Your task to perform on an android device: Go to Maps Image 0: 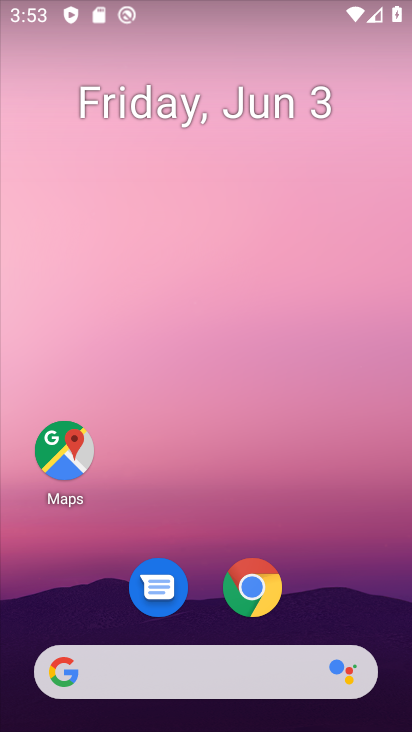
Step 0: click (82, 417)
Your task to perform on an android device: Go to Maps Image 1: 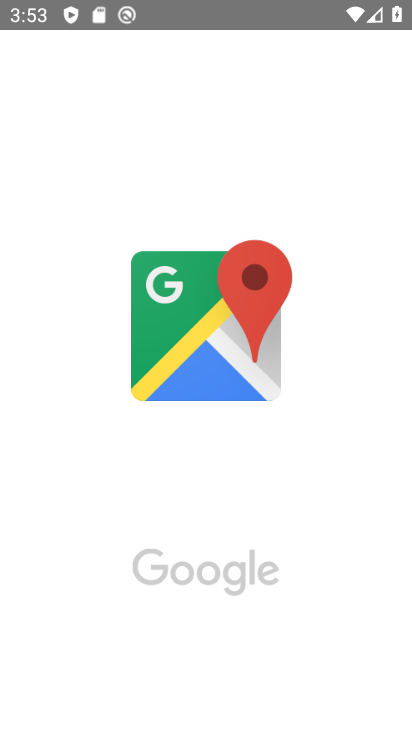
Step 1: click (82, 417)
Your task to perform on an android device: Go to Maps Image 2: 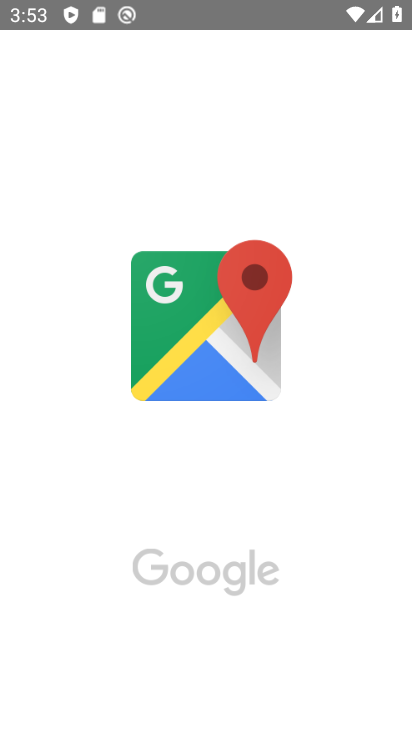
Step 2: click (82, 417)
Your task to perform on an android device: Go to Maps Image 3: 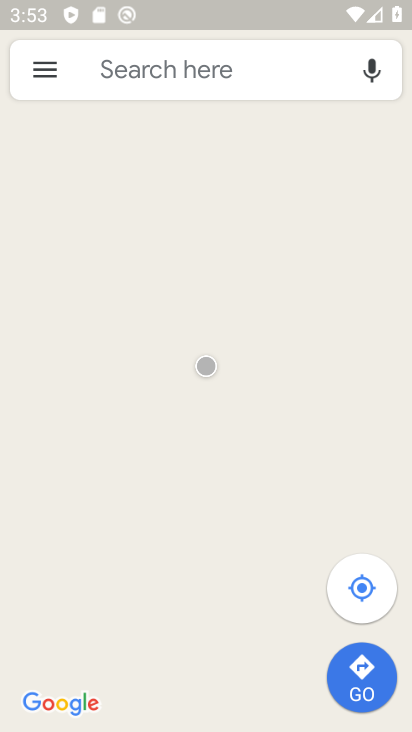
Step 3: task complete